Your task to perform on an android device: toggle pop-ups in chrome Image 0: 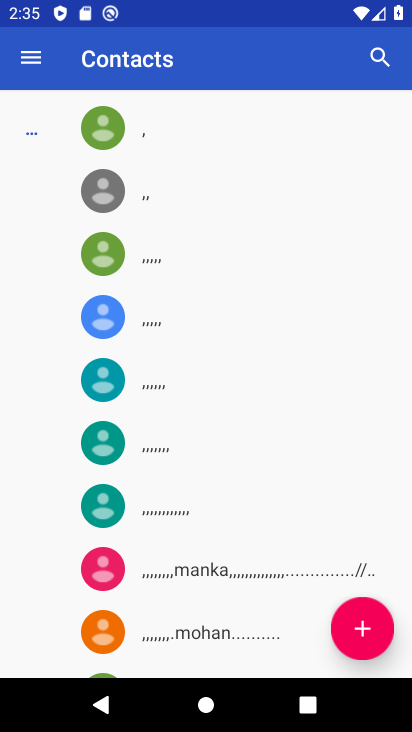
Step 0: press home button
Your task to perform on an android device: toggle pop-ups in chrome Image 1: 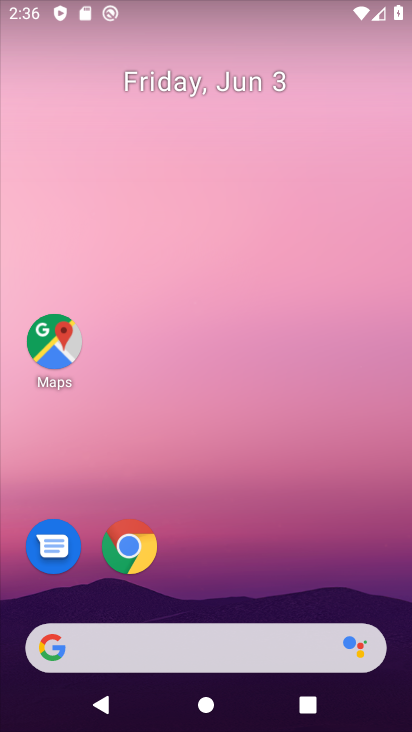
Step 1: click (117, 544)
Your task to perform on an android device: toggle pop-ups in chrome Image 2: 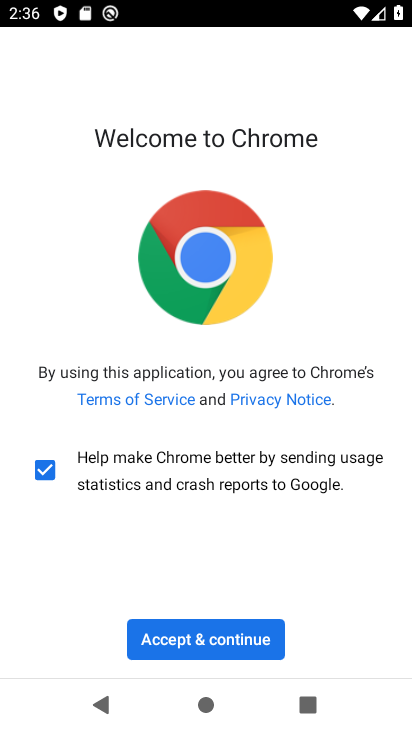
Step 2: click (187, 629)
Your task to perform on an android device: toggle pop-ups in chrome Image 3: 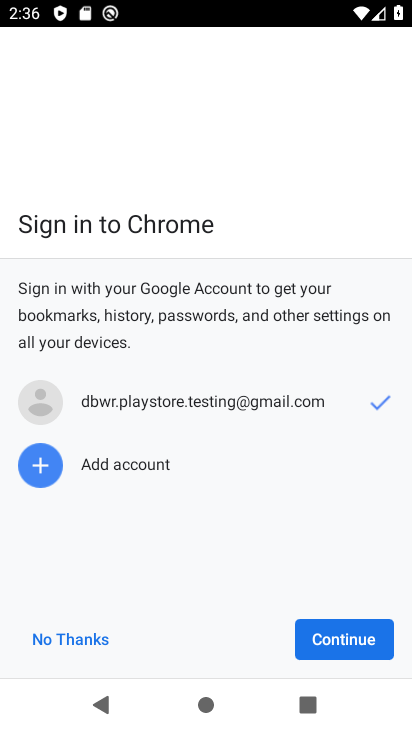
Step 3: click (349, 645)
Your task to perform on an android device: toggle pop-ups in chrome Image 4: 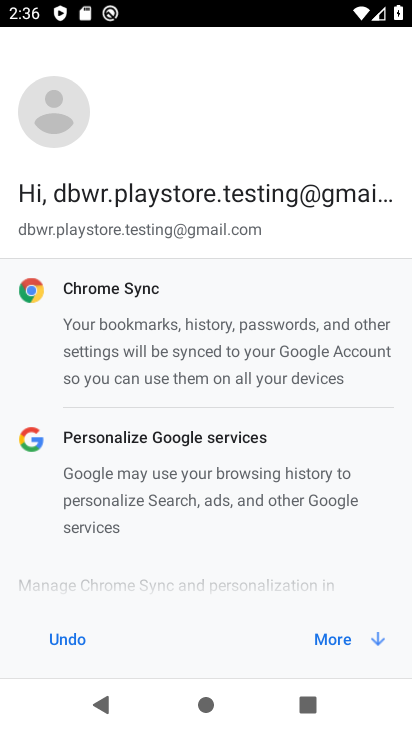
Step 4: click (339, 634)
Your task to perform on an android device: toggle pop-ups in chrome Image 5: 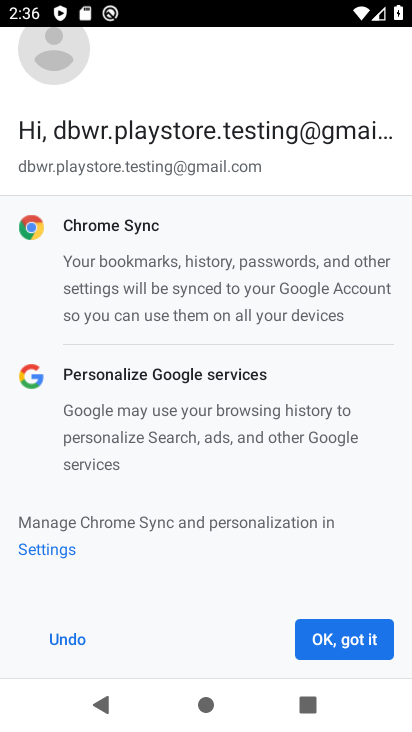
Step 5: click (338, 626)
Your task to perform on an android device: toggle pop-ups in chrome Image 6: 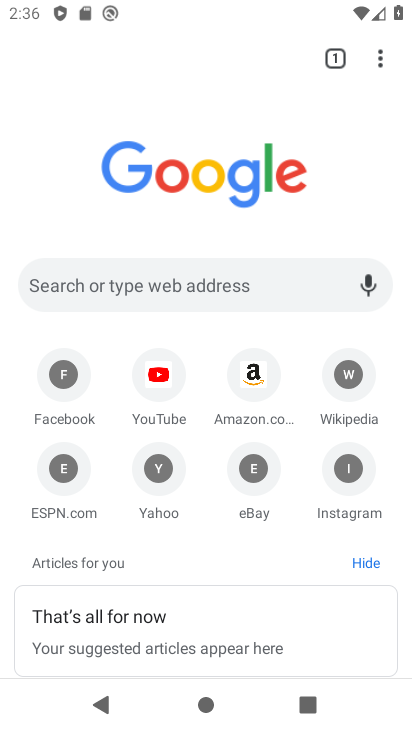
Step 6: click (377, 60)
Your task to perform on an android device: toggle pop-ups in chrome Image 7: 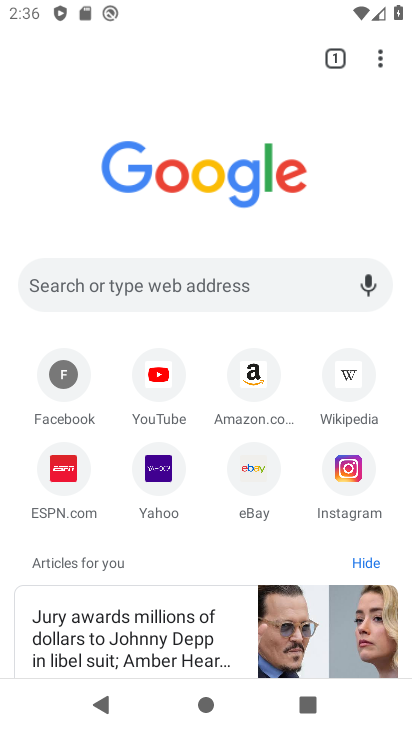
Step 7: click (386, 48)
Your task to perform on an android device: toggle pop-ups in chrome Image 8: 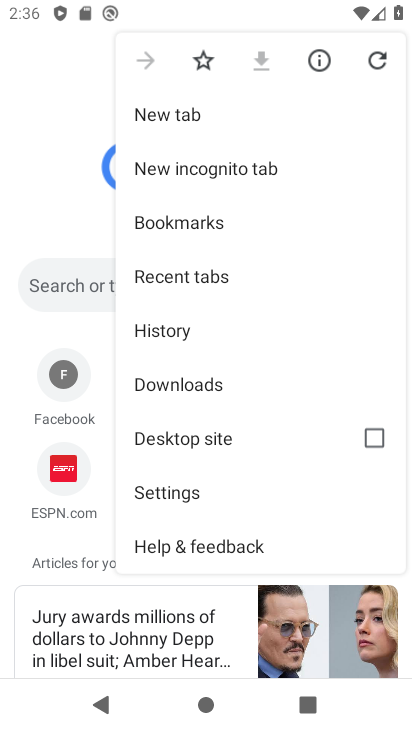
Step 8: click (172, 495)
Your task to perform on an android device: toggle pop-ups in chrome Image 9: 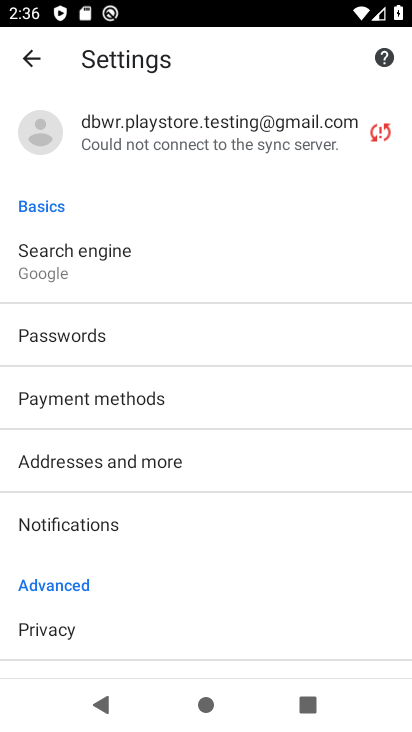
Step 9: drag from (119, 617) to (225, 134)
Your task to perform on an android device: toggle pop-ups in chrome Image 10: 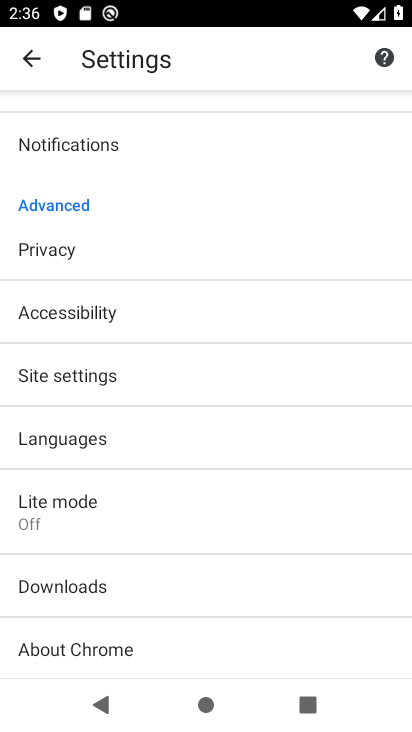
Step 10: click (102, 382)
Your task to perform on an android device: toggle pop-ups in chrome Image 11: 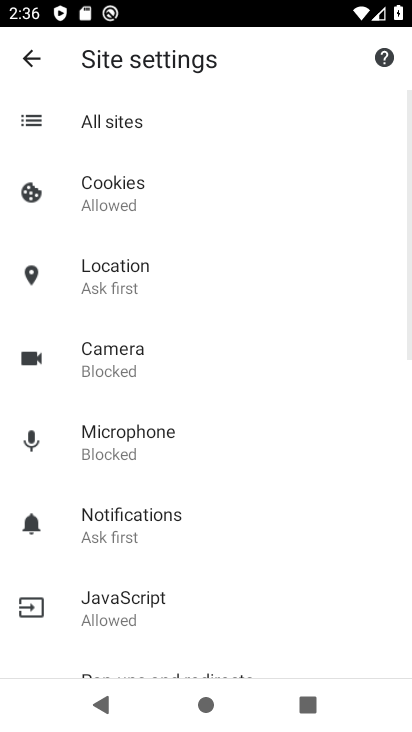
Step 11: drag from (145, 581) to (150, 202)
Your task to perform on an android device: toggle pop-ups in chrome Image 12: 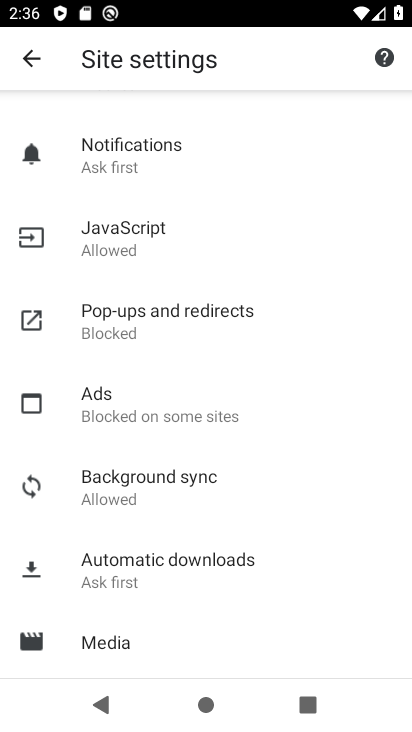
Step 12: click (120, 319)
Your task to perform on an android device: toggle pop-ups in chrome Image 13: 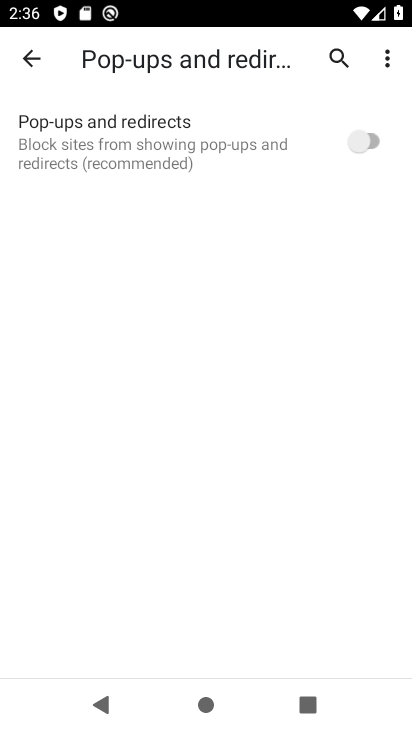
Step 13: click (360, 150)
Your task to perform on an android device: toggle pop-ups in chrome Image 14: 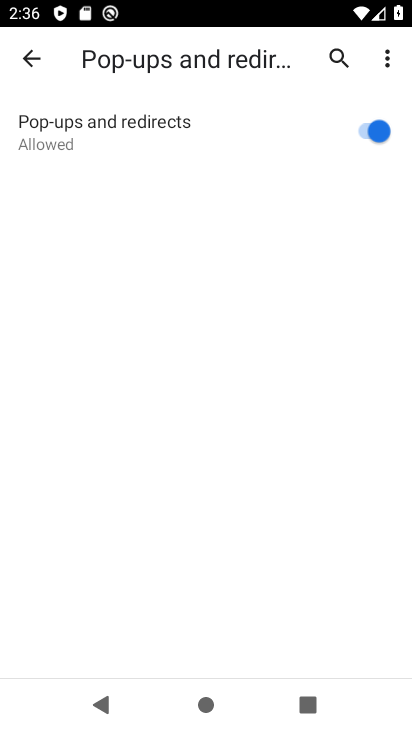
Step 14: task complete